Your task to perform on an android device: star an email in the gmail app Image 0: 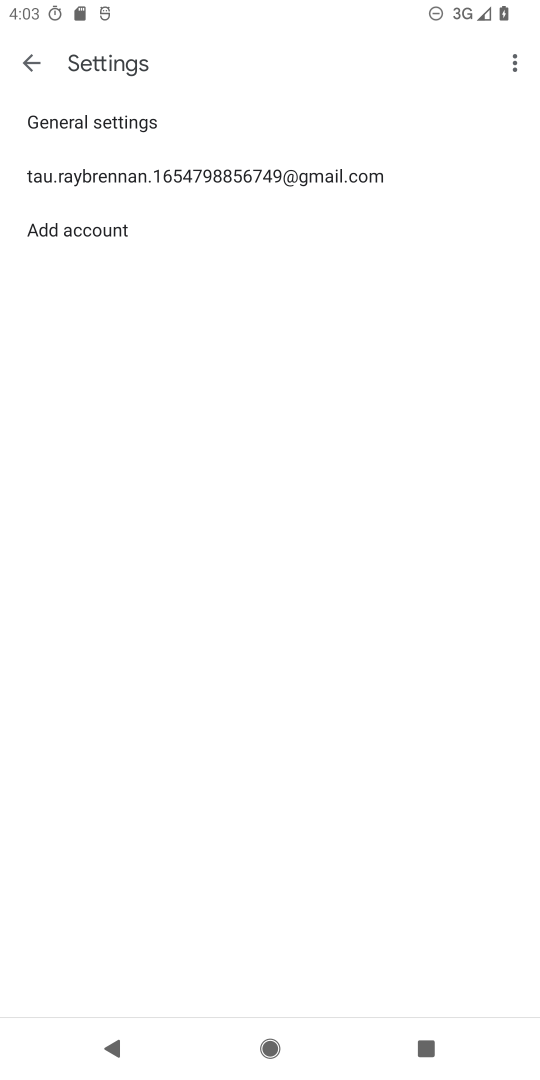
Step 0: press home button
Your task to perform on an android device: star an email in the gmail app Image 1: 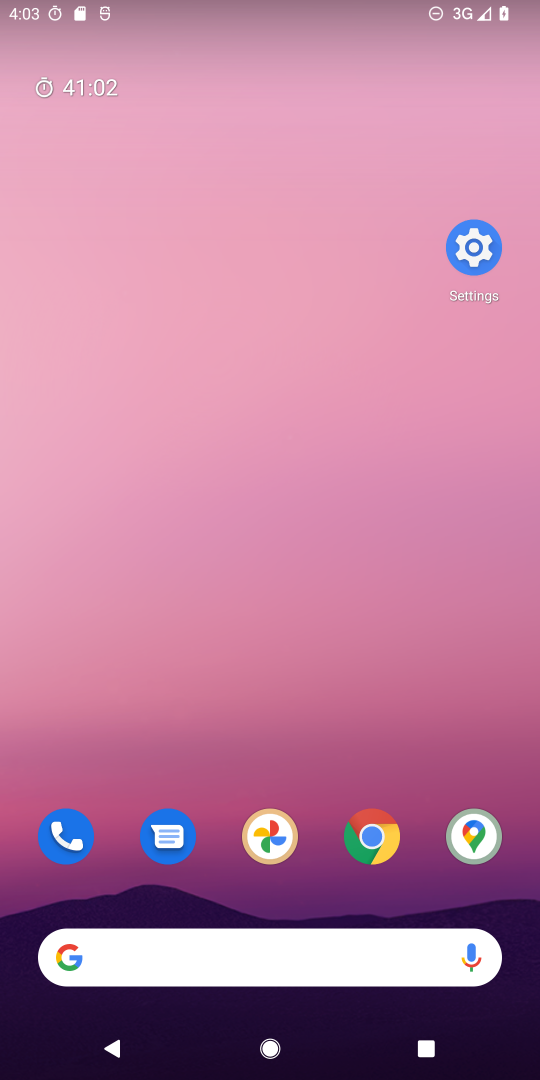
Step 1: drag from (239, 854) to (258, 221)
Your task to perform on an android device: star an email in the gmail app Image 2: 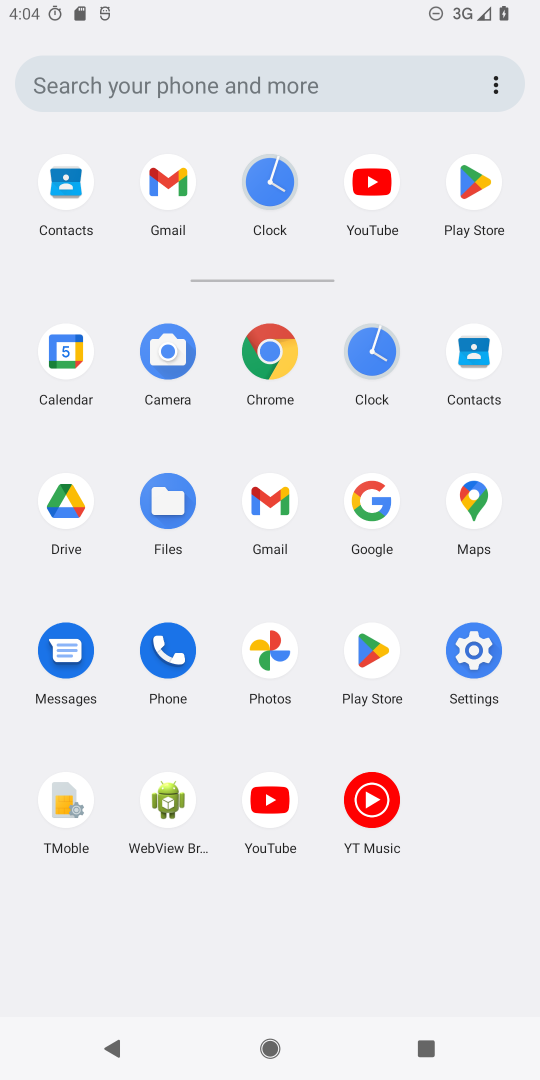
Step 2: click (261, 510)
Your task to perform on an android device: star an email in the gmail app Image 3: 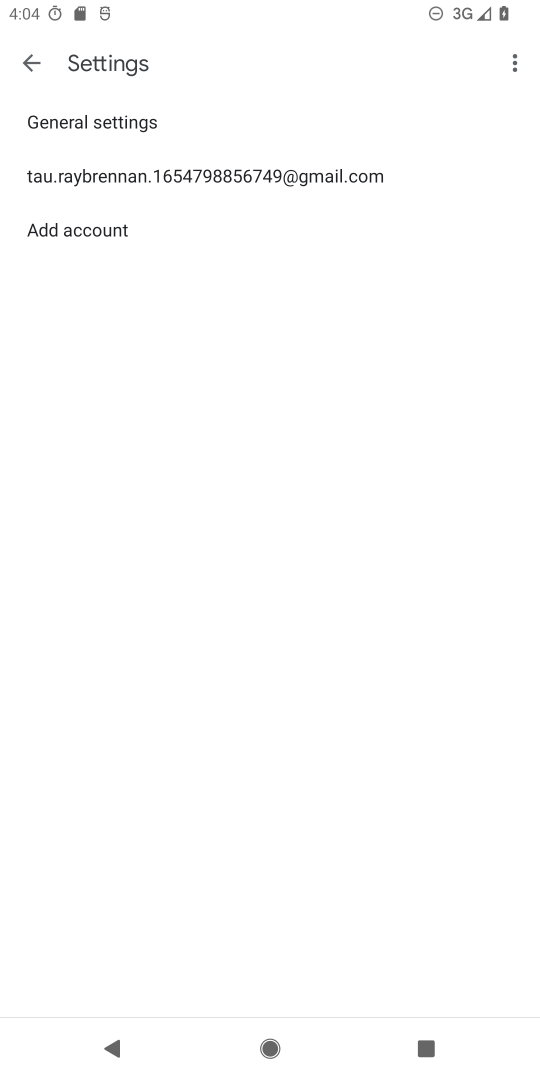
Step 3: click (24, 54)
Your task to perform on an android device: star an email in the gmail app Image 4: 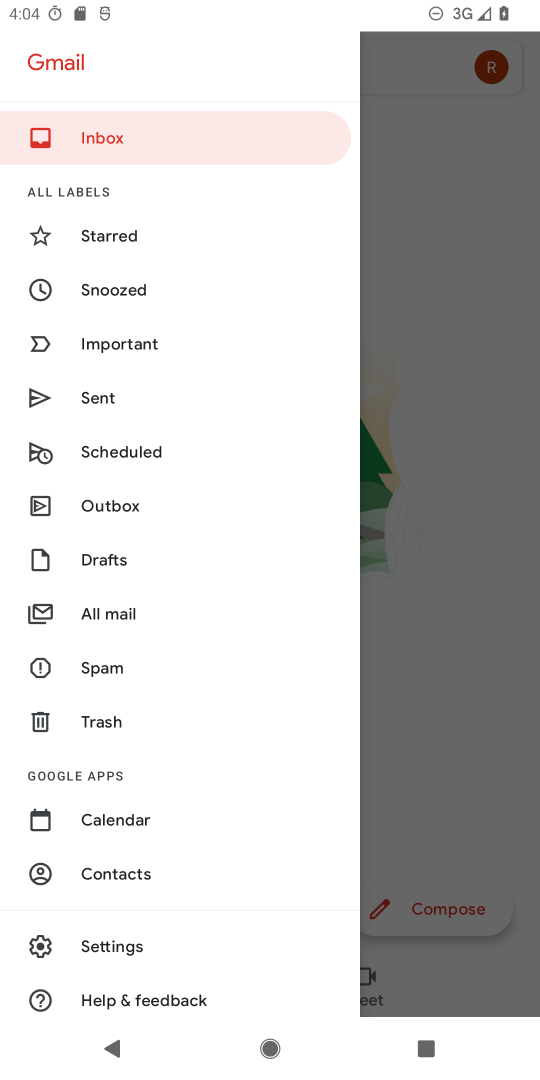
Step 4: click (440, 238)
Your task to perform on an android device: star an email in the gmail app Image 5: 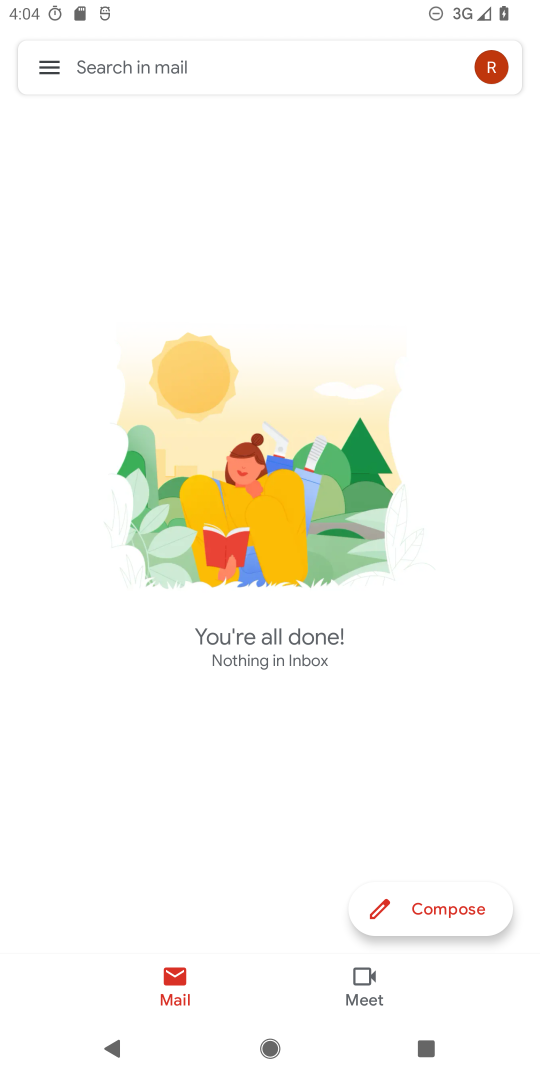
Step 5: task complete